Your task to perform on an android device: clear all cookies in the chrome app Image 0: 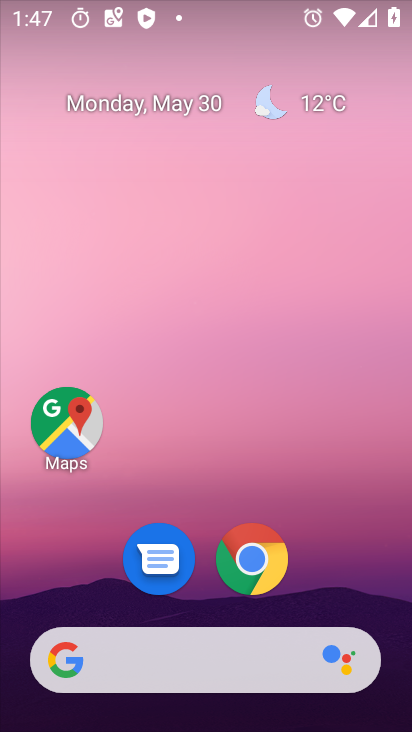
Step 0: click (250, 549)
Your task to perform on an android device: clear all cookies in the chrome app Image 1: 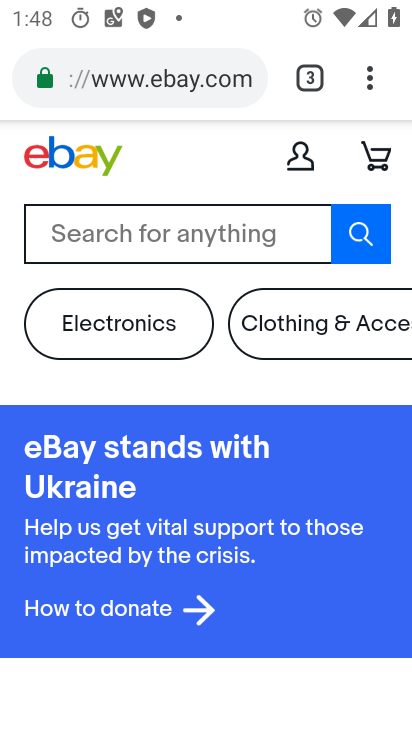
Step 1: drag from (364, 77) to (100, 443)
Your task to perform on an android device: clear all cookies in the chrome app Image 2: 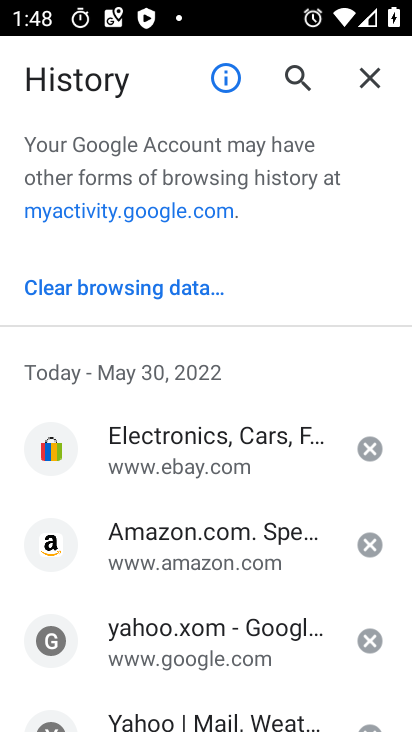
Step 2: click (151, 296)
Your task to perform on an android device: clear all cookies in the chrome app Image 3: 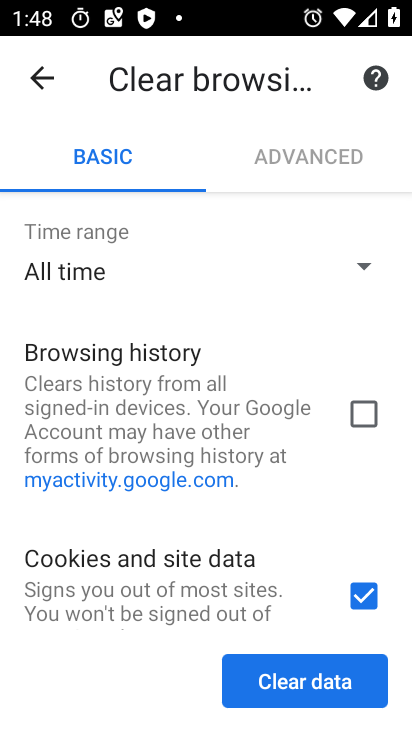
Step 3: click (279, 684)
Your task to perform on an android device: clear all cookies in the chrome app Image 4: 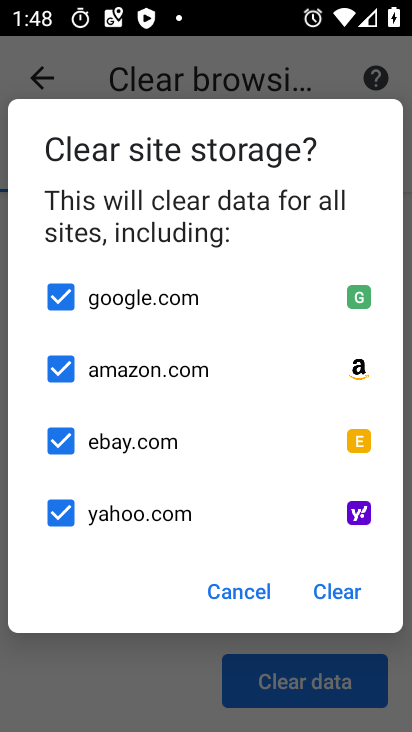
Step 4: click (335, 600)
Your task to perform on an android device: clear all cookies in the chrome app Image 5: 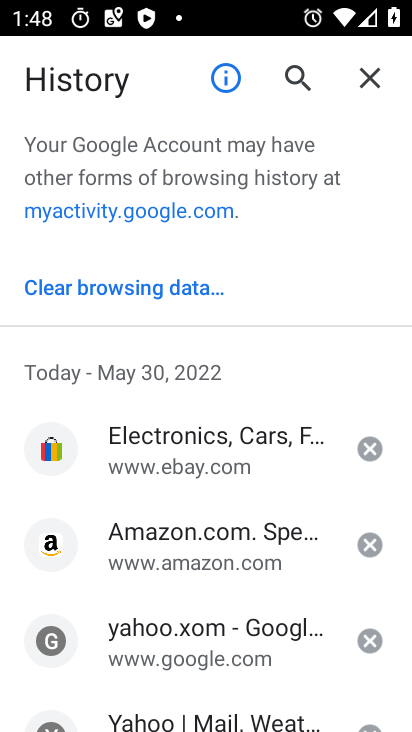
Step 5: task complete